Your task to perform on an android device: set default search engine in the chrome app Image 0: 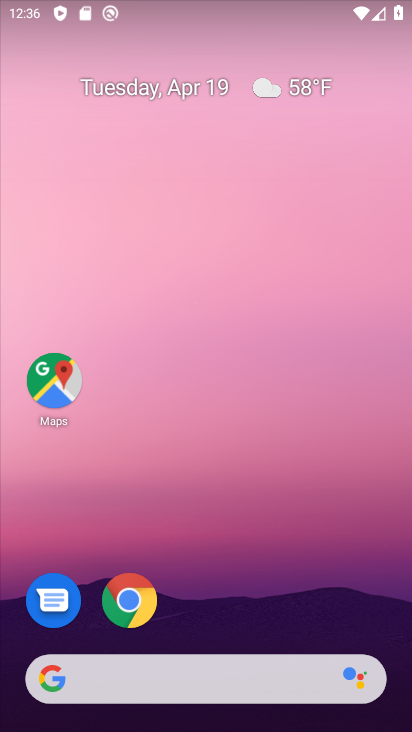
Step 0: drag from (257, 477) to (199, 121)
Your task to perform on an android device: set default search engine in the chrome app Image 1: 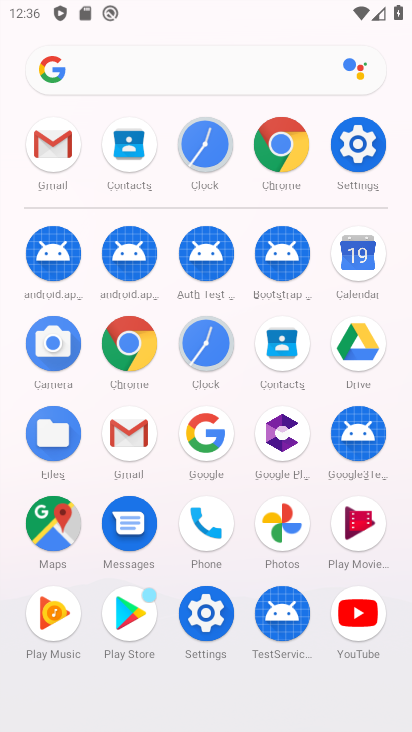
Step 1: click (284, 148)
Your task to perform on an android device: set default search engine in the chrome app Image 2: 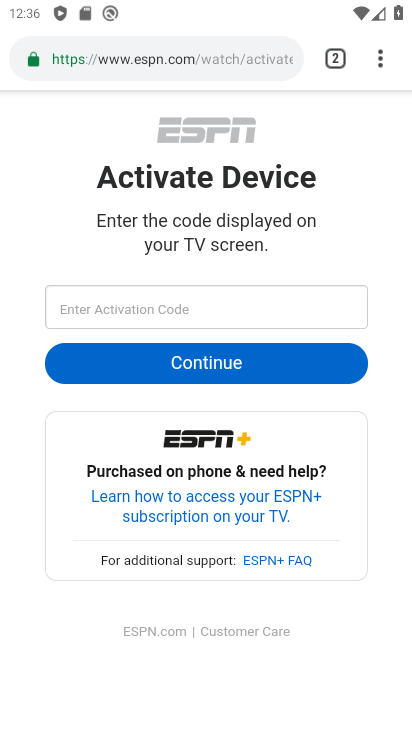
Step 2: click (380, 62)
Your task to perform on an android device: set default search engine in the chrome app Image 3: 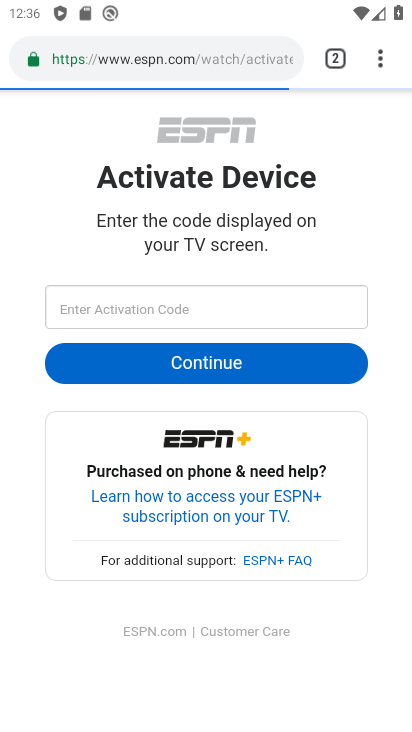
Step 3: click (380, 63)
Your task to perform on an android device: set default search engine in the chrome app Image 4: 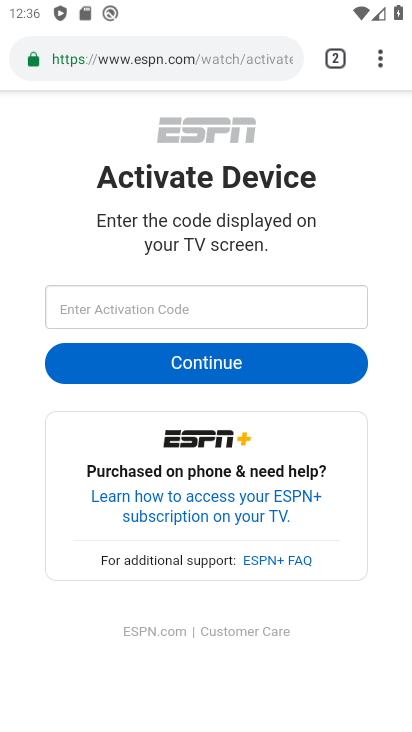
Step 4: drag from (380, 63) to (283, 629)
Your task to perform on an android device: set default search engine in the chrome app Image 5: 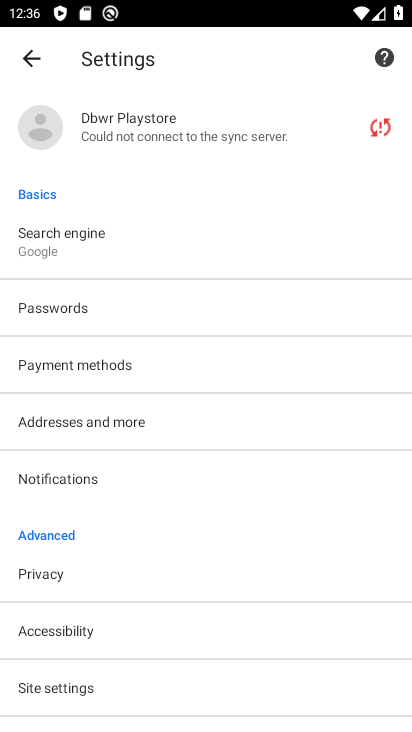
Step 5: click (169, 250)
Your task to perform on an android device: set default search engine in the chrome app Image 6: 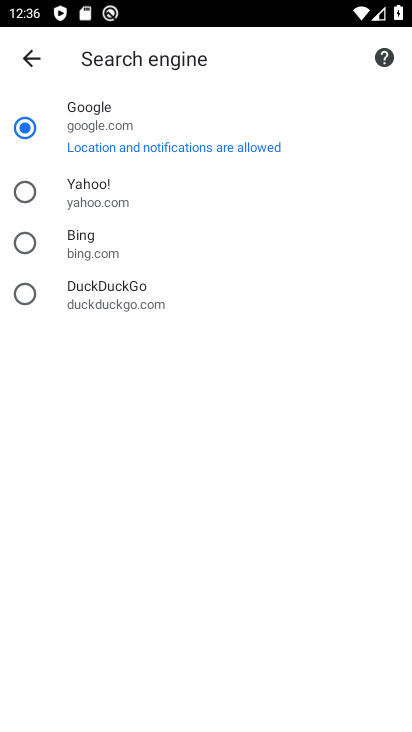
Step 6: click (139, 249)
Your task to perform on an android device: set default search engine in the chrome app Image 7: 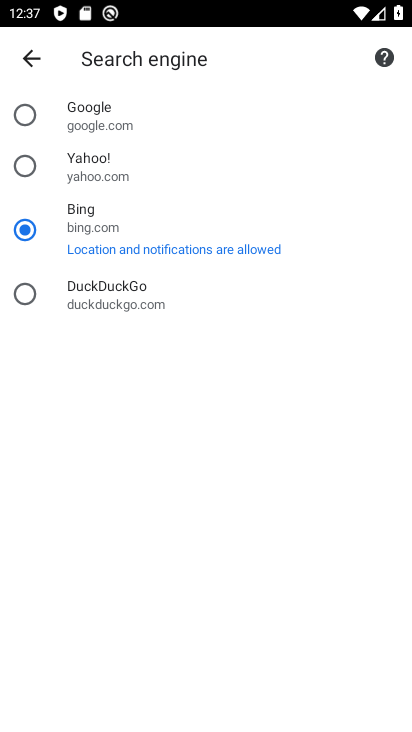
Step 7: task complete